Your task to perform on an android device: Open Google Image 0: 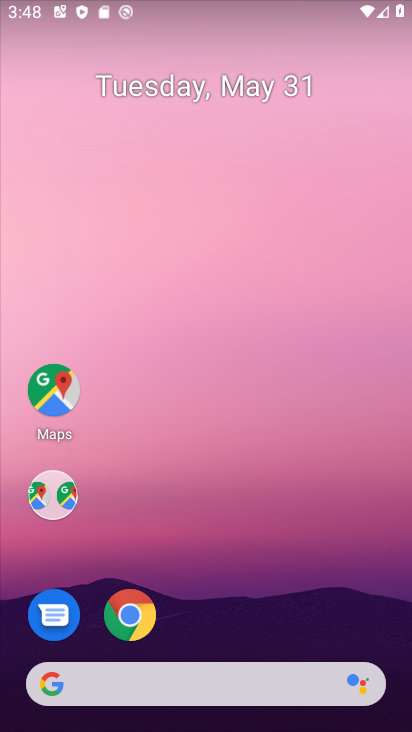
Step 0: drag from (287, 671) to (163, 37)
Your task to perform on an android device: Open Google Image 1: 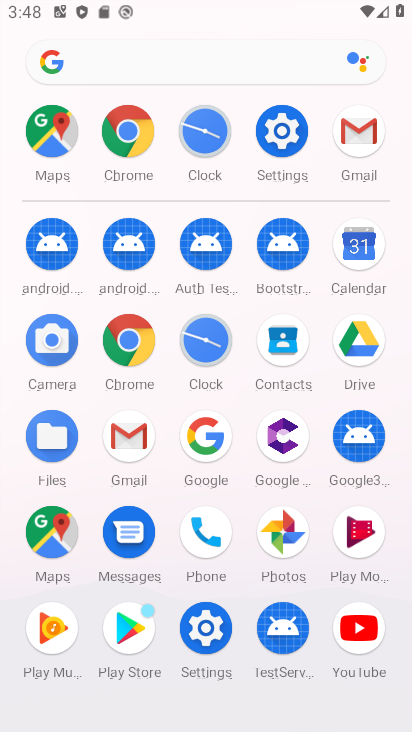
Step 1: click (209, 445)
Your task to perform on an android device: Open Google Image 2: 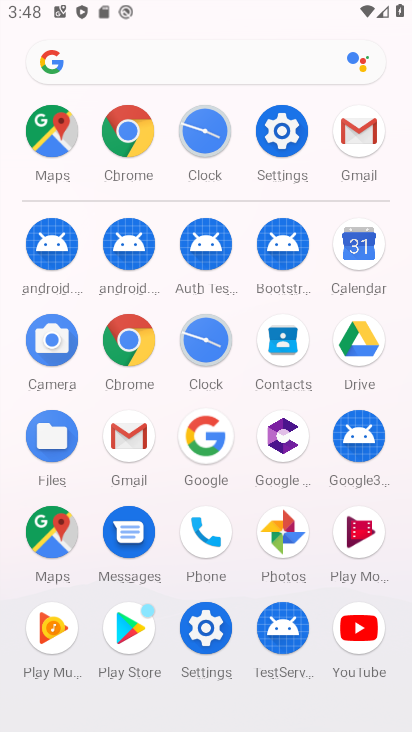
Step 2: click (209, 443)
Your task to perform on an android device: Open Google Image 3: 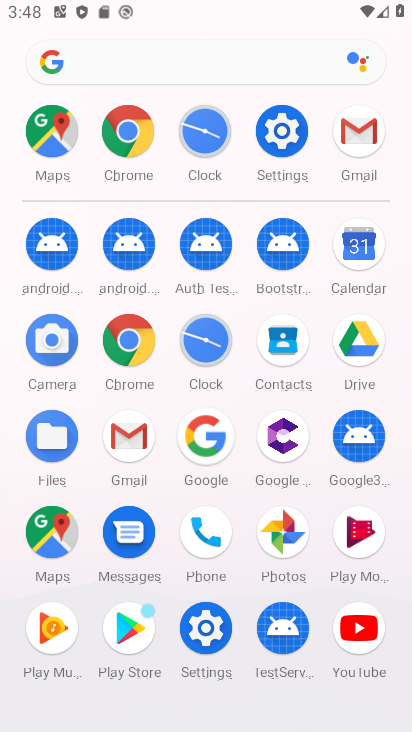
Step 3: click (209, 441)
Your task to perform on an android device: Open Google Image 4: 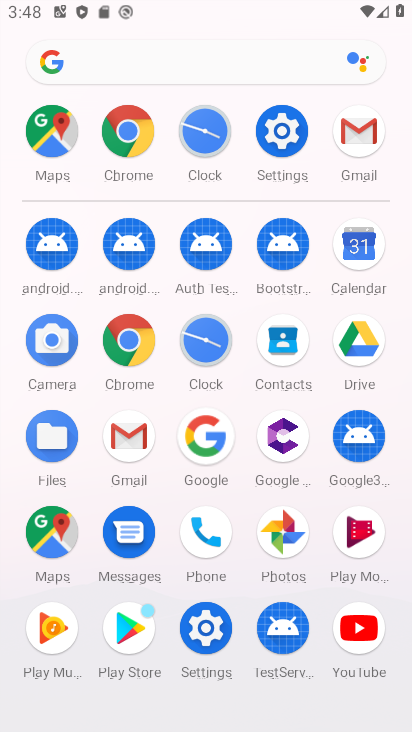
Step 4: click (201, 431)
Your task to perform on an android device: Open Google Image 5: 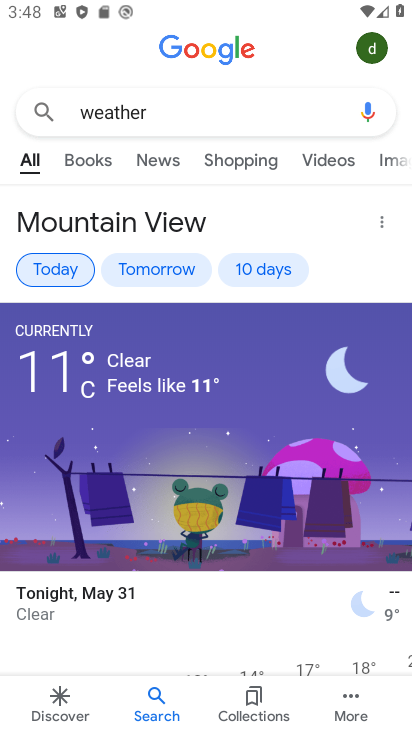
Step 5: click (201, 431)
Your task to perform on an android device: Open Google Image 6: 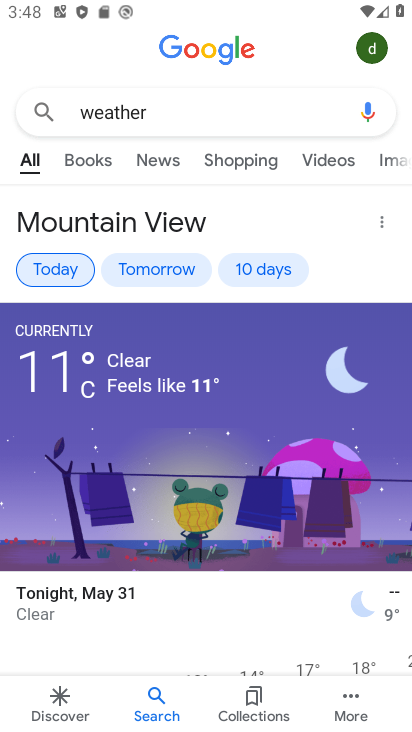
Step 6: task complete